Your task to perform on an android device: Go to wifi settings Image 0: 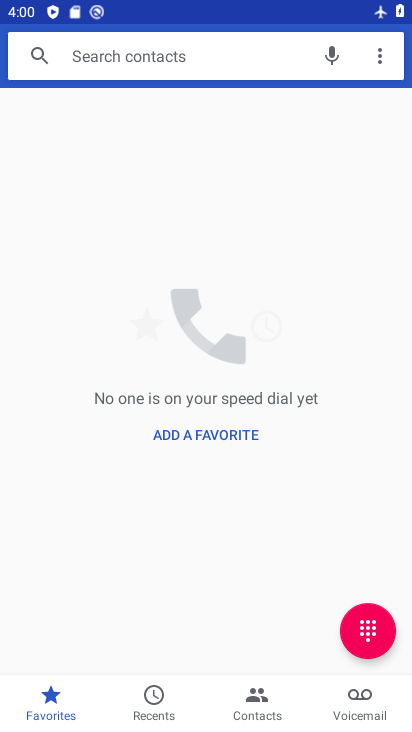
Step 0: press home button
Your task to perform on an android device: Go to wifi settings Image 1: 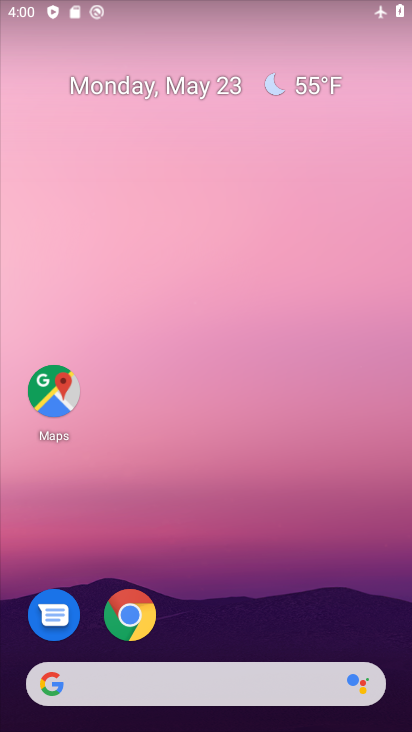
Step 1: drag from (346, 632) to (365, 198)
Your task to perform on an android device: Go to wifi settings Image 2: 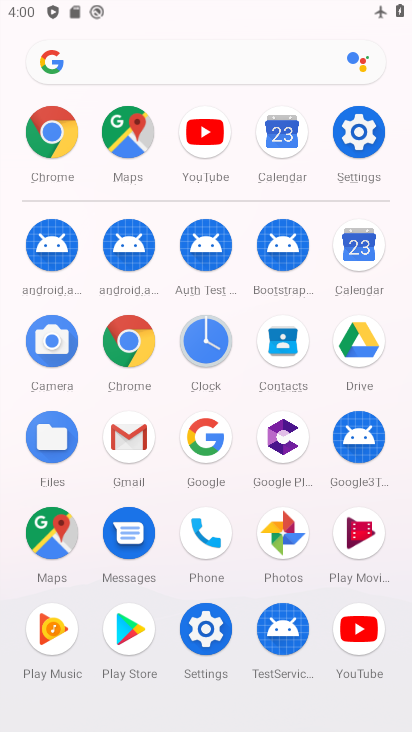
Step 2: click (216, 633)
Your task to perform on an android device: Go to wifi settings Image 3: 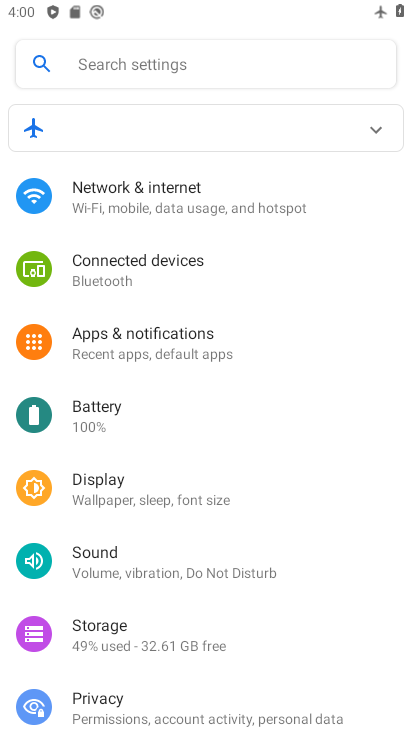
Step 3: drag from (330, 645) to (349, 540)
Your task to perform on an android device: Go to wifi settings Image 4: 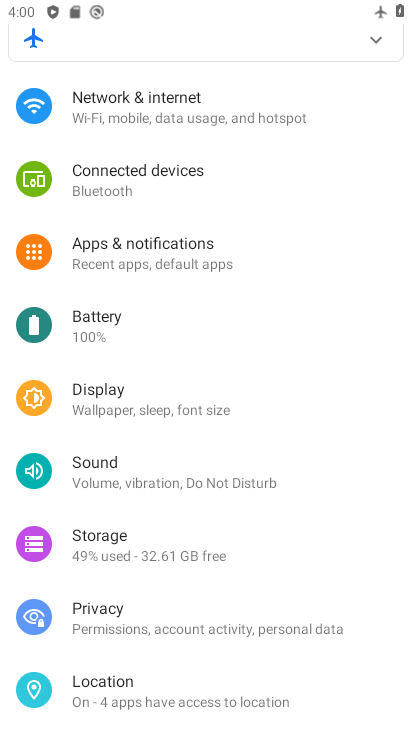
Step 4: drag from (345, 672) to (357, 560)
Your task to perform on an android device: Go to wifi settings Image 5: 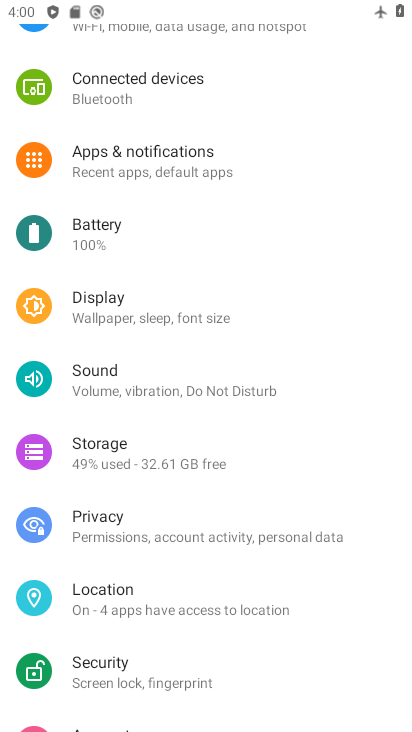
Step 5: drag from (339, 677) to (353, 532)
Your task to perform on an android device: Go to wifi settings Image 6: 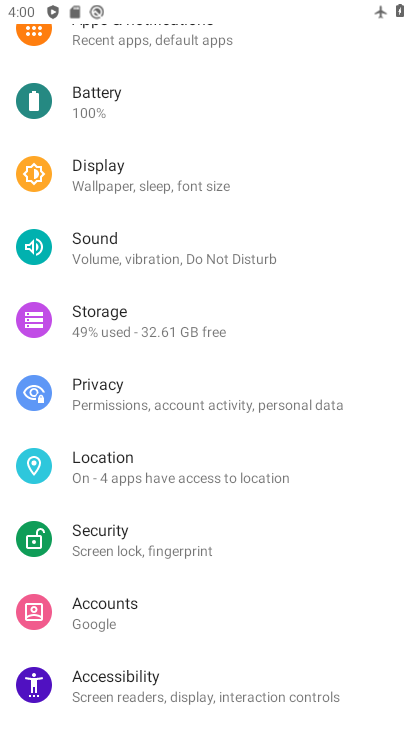
Step 6: drag from (351, 633) to (358, 510)
Your task to perform on an android device: Go to wifi settings Image 7: 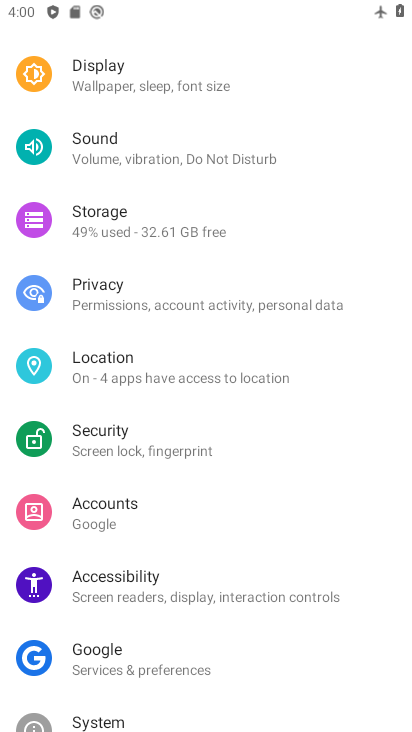
Step 7: drag from (338, 657) to (344, 558)
Your task to perform on an android device: Go to wifi settings Image 8: 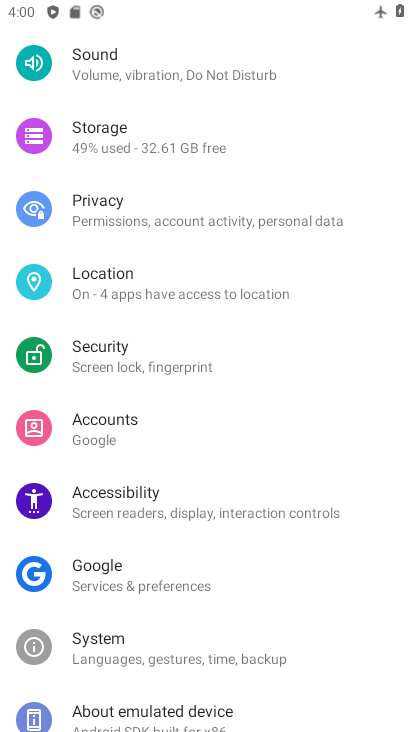
Step 8: drag from (339, 631) to (334, 569)
Your task to perform on an android device: Go to wifi settings Image 9: 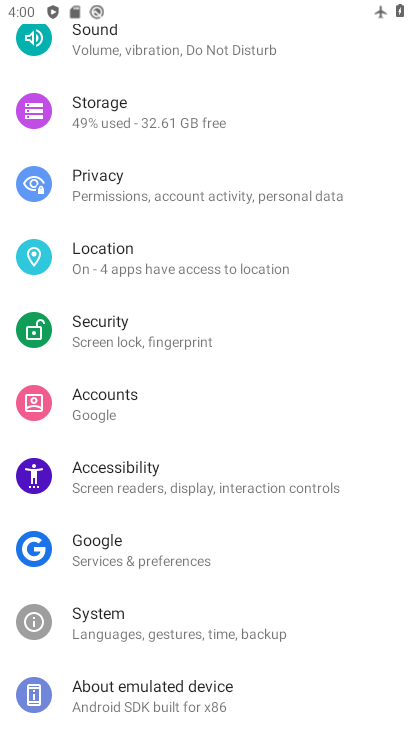
Step 9: drag from (324, 666) to (335, 555)
Your task to perform on an android device: Go to wifi settings Image 10: 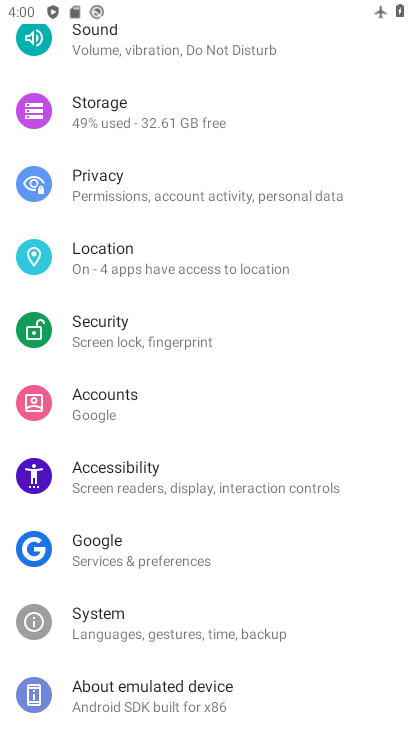
Step 10: drag from (359, 396) to (362, 499)
Your task to perform on an android device: Go to wifi settings Image 11: 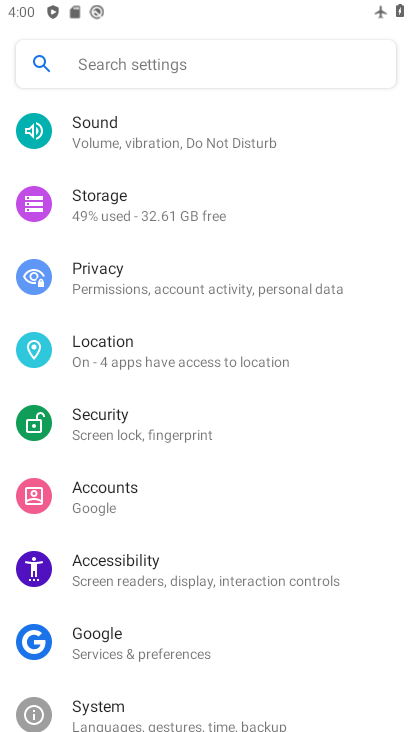
Step 11: drag from (351, 381) to (345, 498)
Your task to perform on an android device: Go to wifi settings Image 12: 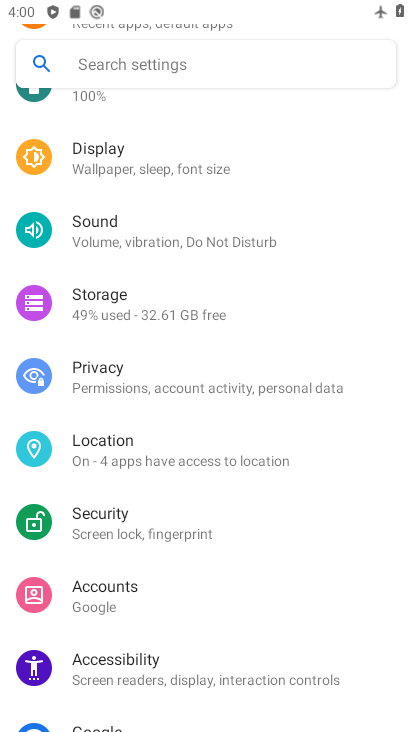
Step 12: drag from (351, 373) to (352, 480)
Your task to perform on an android device: Go to wifi settings Image 13: 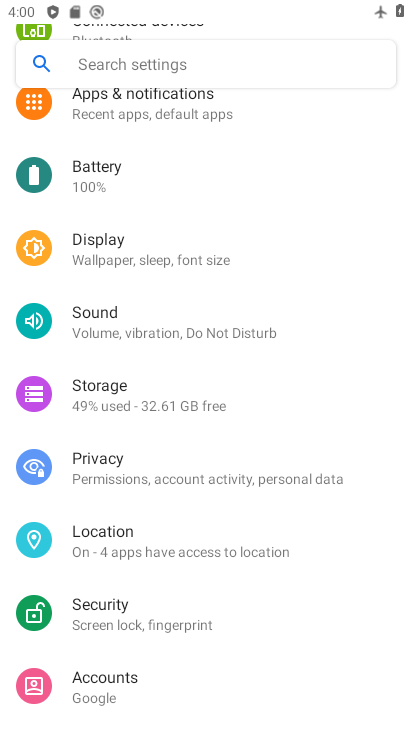
Step 13: drag from (357, 350) to (348, 451)
Your task to perform on an android device: Go to wifi settings Image 14: 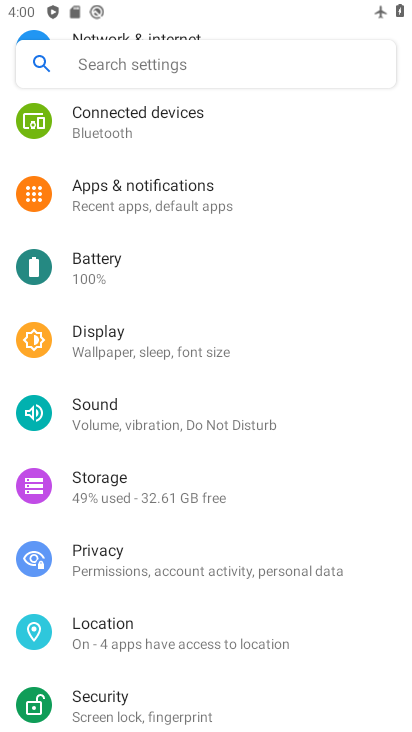
Step 14: drag from (342, 360) to (342, 473)
Your task to perform on an android device: Go to wifi settings Image 15: 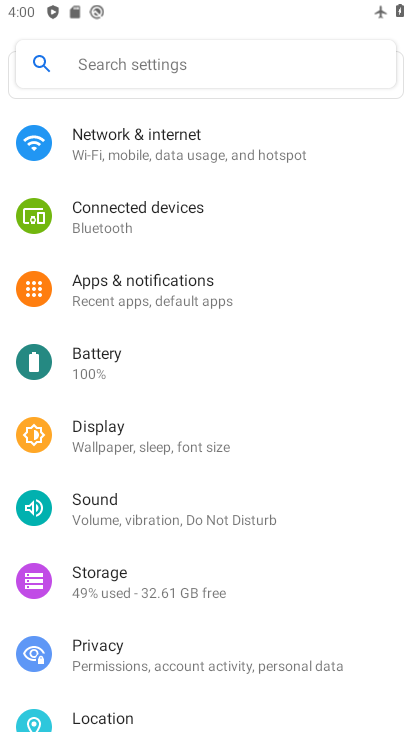
Step 15: drag from (342, 335) to (343, 487)
Your task to perform on an android device: Go to wifi settings Image 16: 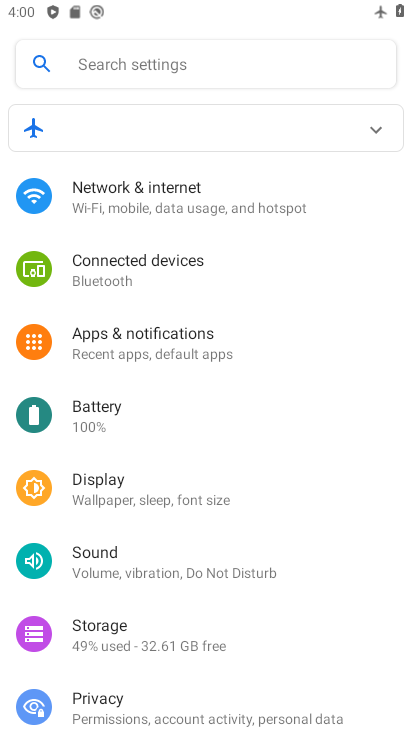
Step 16: click (225, 215)
Your task to perform on an android device: Go to wifi settings Image 17: 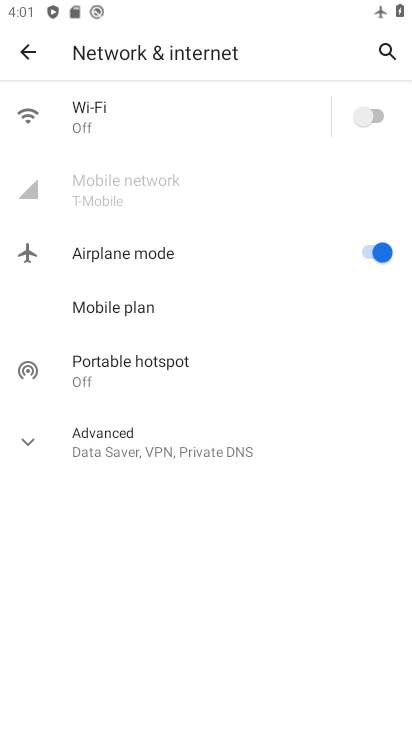
Step 17: click (112, 120)
Your task to perform on an android device: Go to wifi settings Image 18: 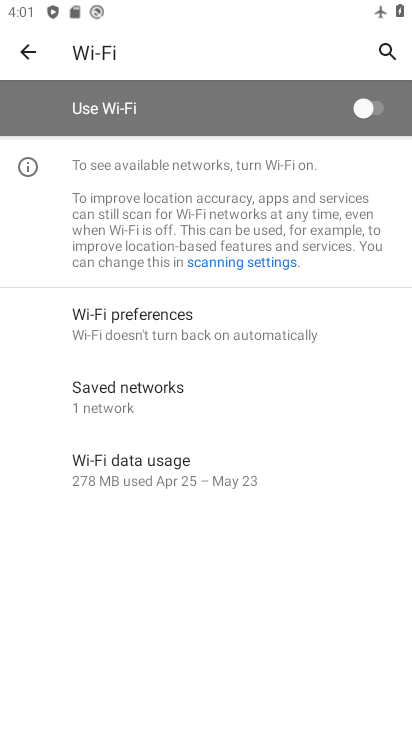
Step 18: task complete